Your task to perform on an android device: Open Chrome and go to settings Image 0: 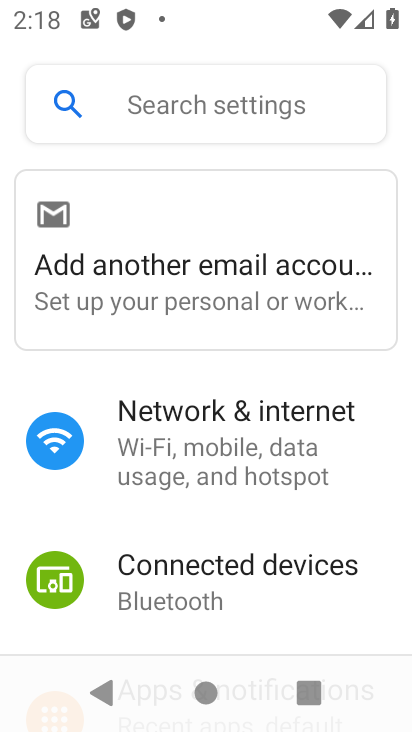
Step 0: press home button
Your task to perform on an android device: Open Chrome and go to settings Image 1: 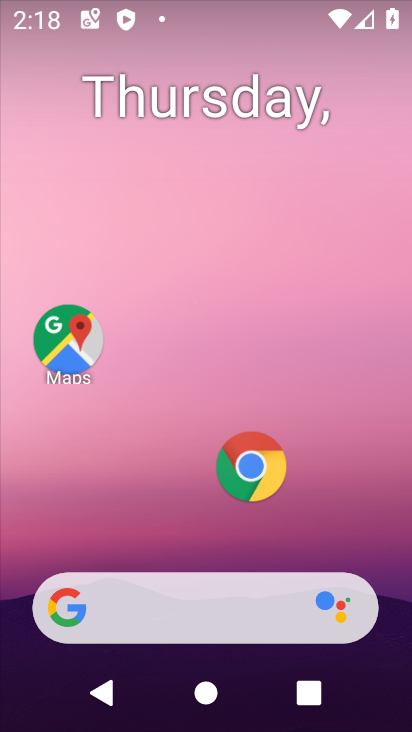
Step 1: click (280, 463)
Your task to perform on an android device: Open Chrome and go to settings Image 2: 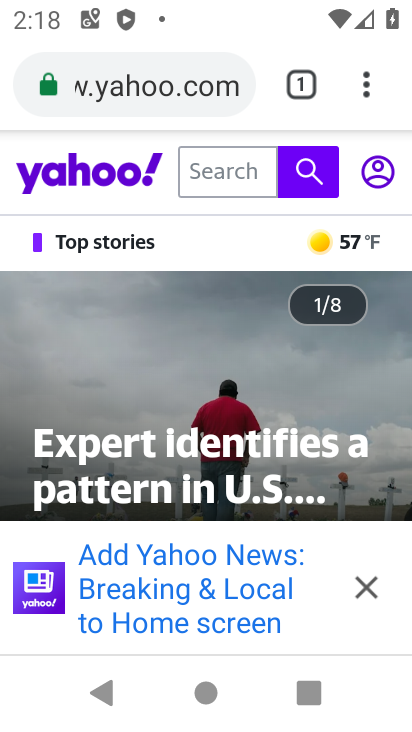
Step 2: task complete